Your task to perform on an android device: turn on priority inbox in the gmail app Image 0: 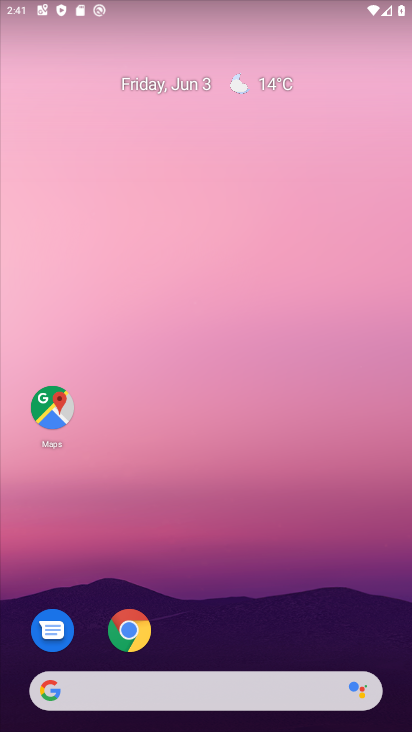
Step 0: drag from (239, 629) to (149, 175)
Your task to perform on an android device: turn on priority inbox in the gmail app Image 1: 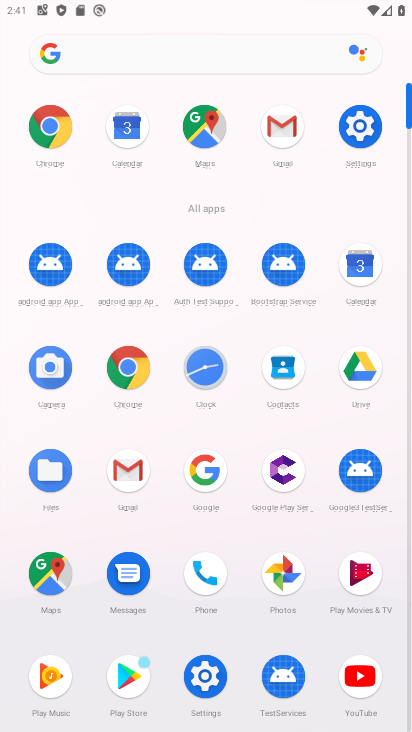
Step 1: click (281, 122)
Your task to perform on an android device: turn on priority inbox in the gmail app Image 2: 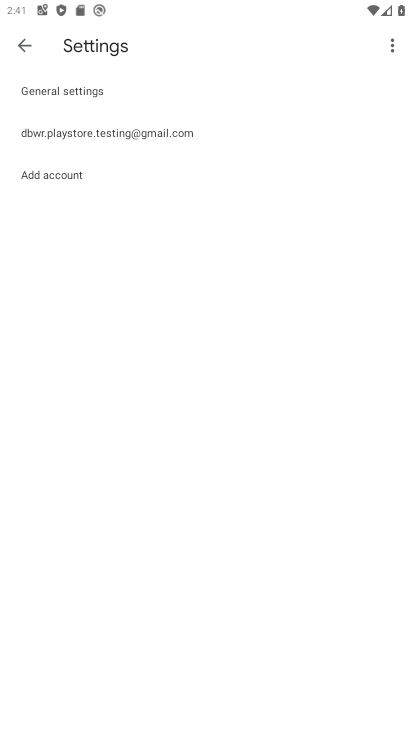
Step 2: click (208, 138)
Your task to perform on an android device: turn on priority inbox in the gmail app Image 3: 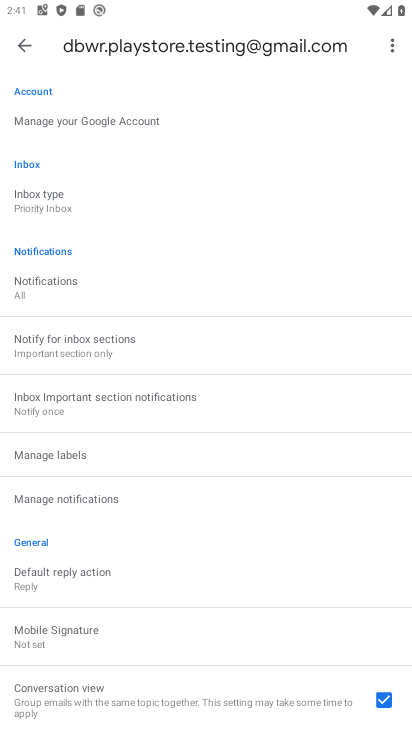
Step 3: task complete